Your task to perform on an android device: move an email to a new category in the gmail app Image 0: 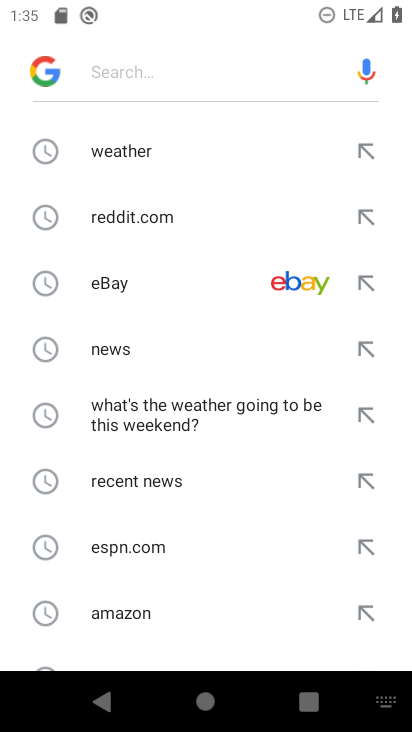
Step 0: press home button
Your task to perform on an android device: move an email to a new category in the gmail app Image 1: 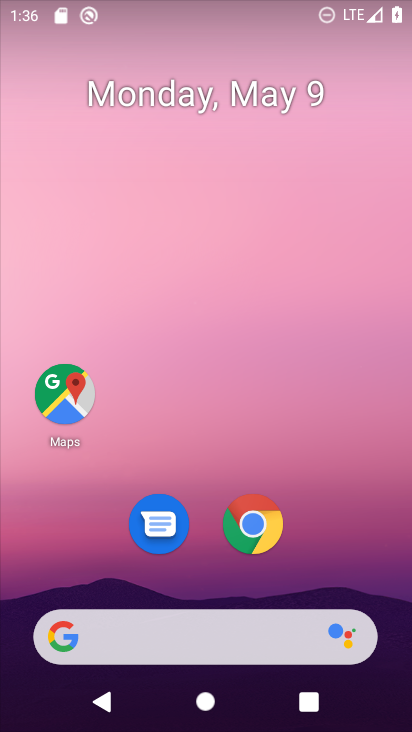
Step 1: drag from (344, 535) to (319, 80)
Your task to perform on an android device: move an email to a new category in the gmail app Image 2: 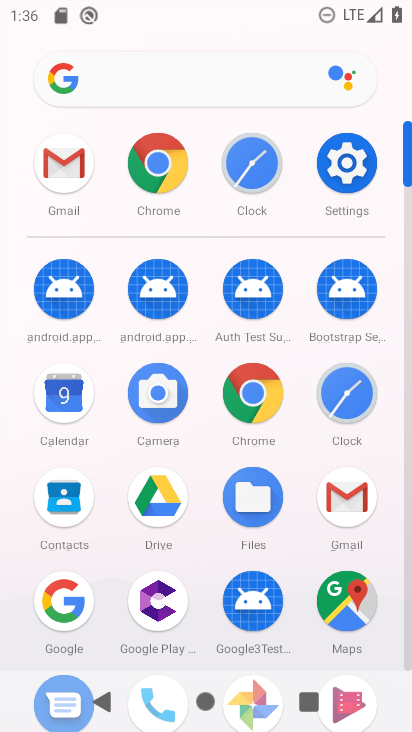
Step 2: click (67, 168)
Your task to perform on an android device: move an email to a new category in the gmail app Image 3: 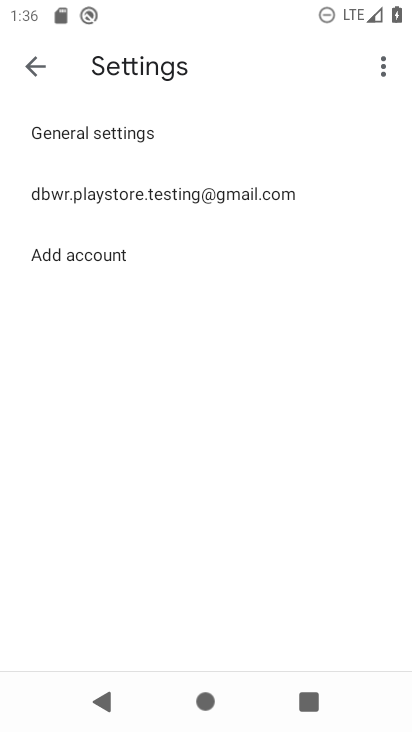
Step 3: click (31, 58)
Your task to perform on an android device: move an email to a new category in the gmail app Image 4: 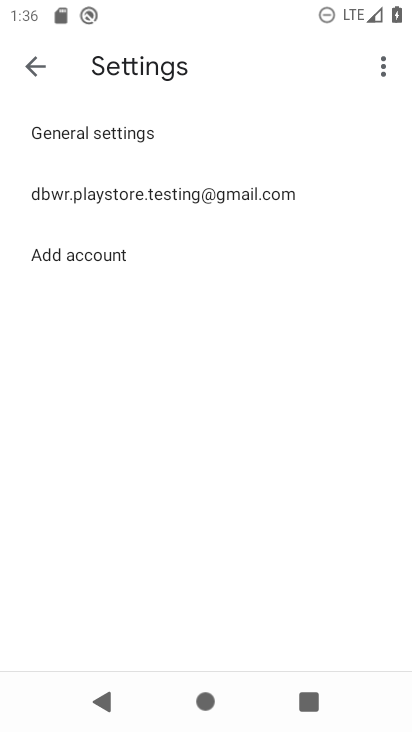
Step 4: click (39, 61)
Your task to perform on an android device: move an email to a new category in the gmail app Image 5: 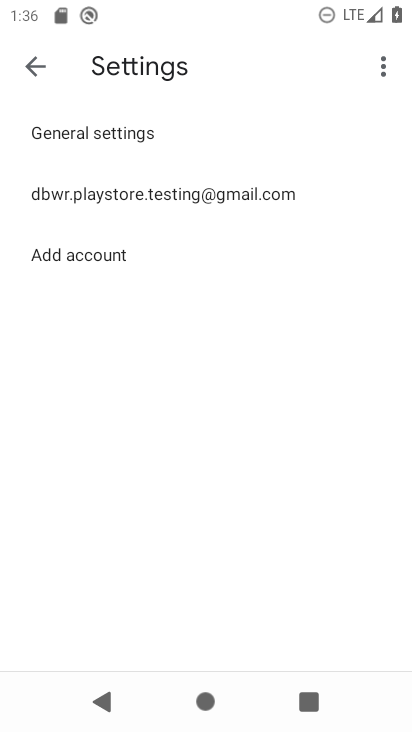
Step 5: click (39, 61)
Your task to perform on an android device: move an email to a new category in the gmail app Image 6: 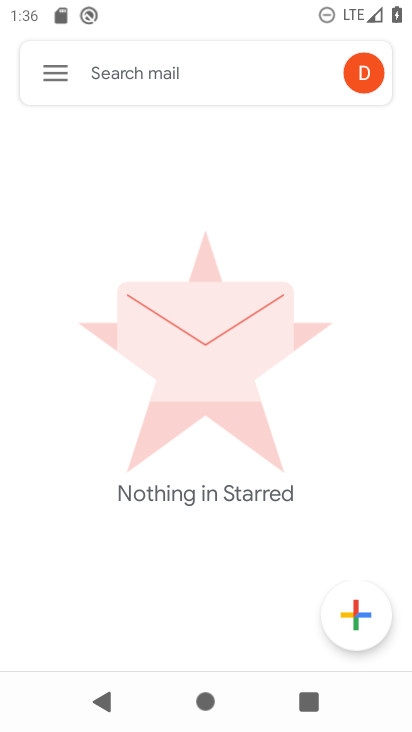
Step 6: click (48, 72)
Your task to perform on an android device: move an email to a new category in the gmail app Image 7: 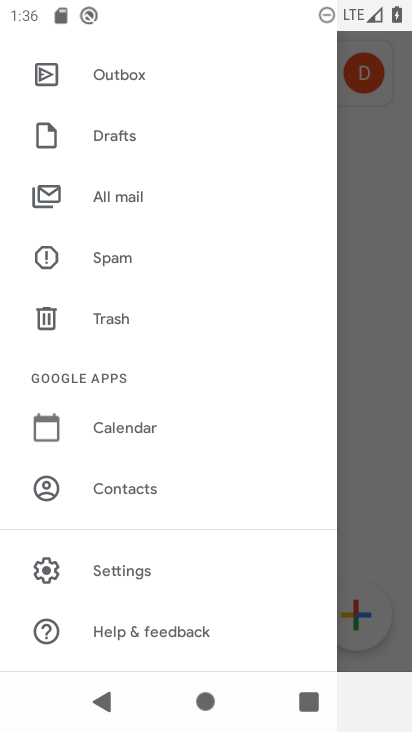
Step 7: click (98, 187)
Your task to perform on an android device: move an email to a new category in the gmail app Image 8: 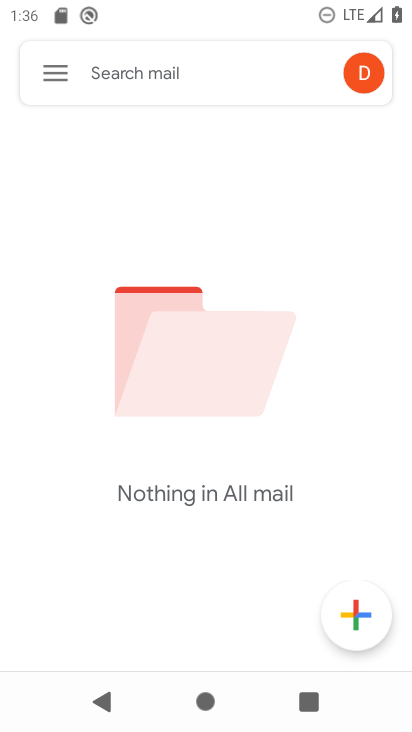
Step 8: task complete